Your task to perform on an android device: turn vacation reply on in the gmail app Image 0: 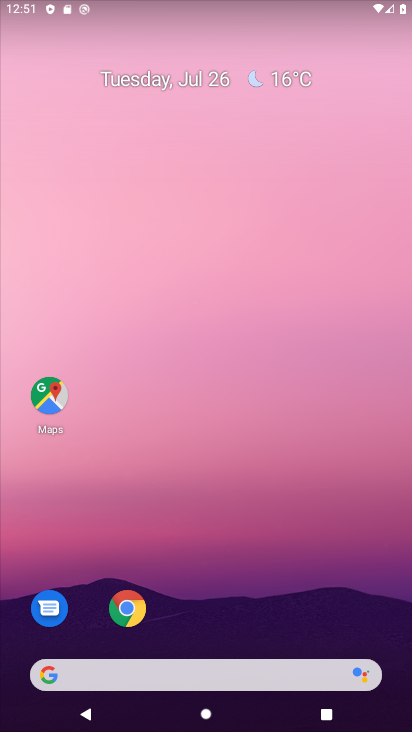
Step 0: drag from (250, 629) to (202, 119)
Your task to perform on an android device: turn vacation reply on in the gmail app Image 1: 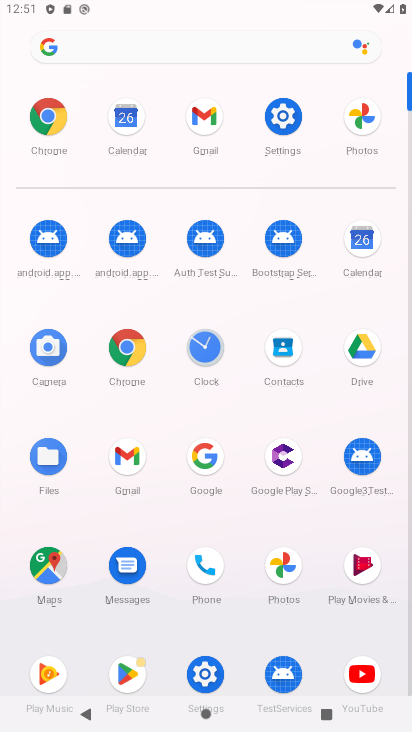
Step 1: click (147, 480)
Your task to perform on an android device: turn vacation reply on in the gmail app Image 2: 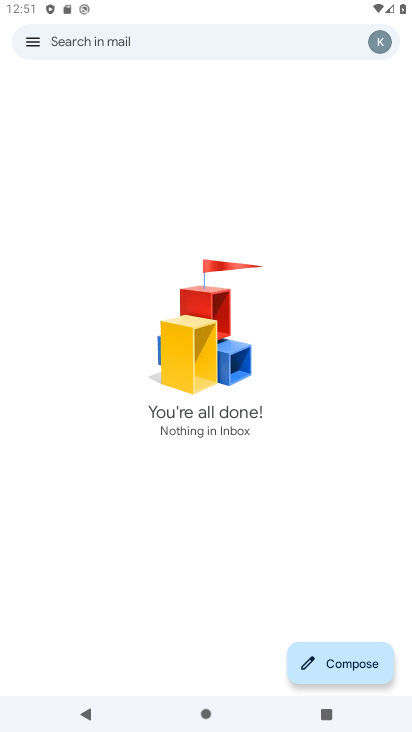
Step 2: click (36, 42)
Your task to perform on an android device: turn vacation reply on in the gmail app Image 3: 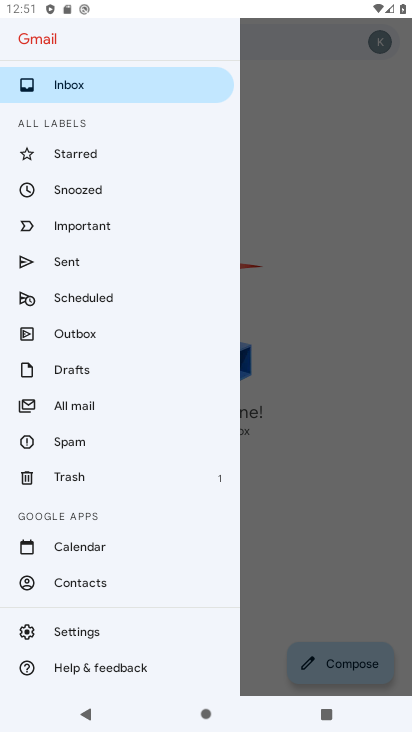
Step 3: click (88, 619)
Your task to perform on an android device: turn vacation reply on in the gmail app Image 4: 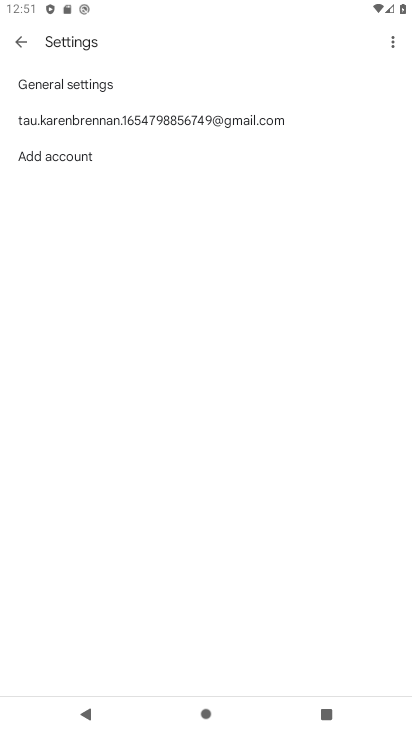
Step 4: click (126, 108)
Your task to perform on an android device: turn vacation reply on in the gmail app Image 5: 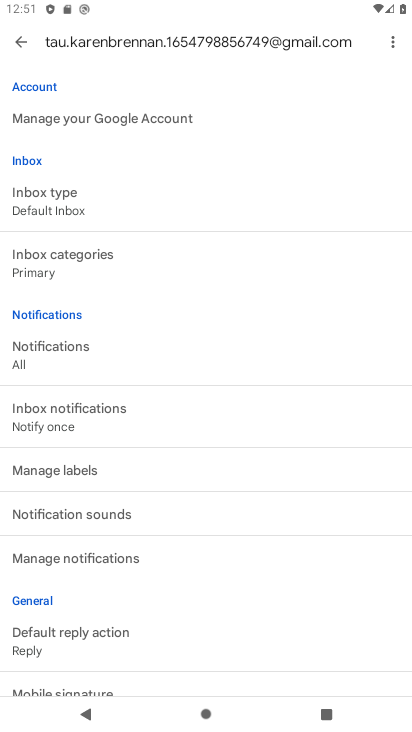
Step 5: task complete